Your task to perform on an android device: check battery use Image 0: 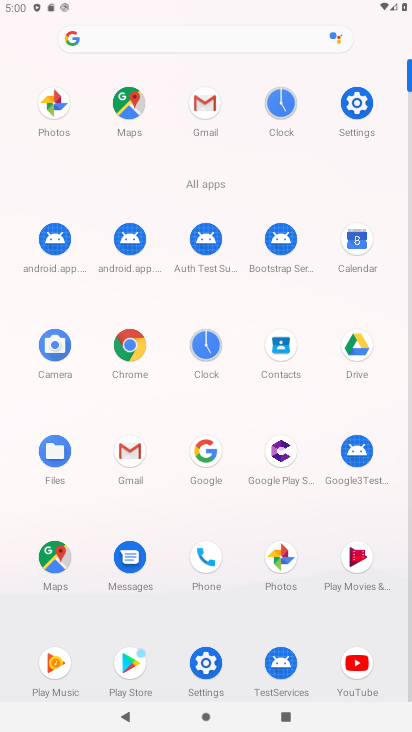
Step 0: press home button
Your task to perform on an android device: check battery use Image 1: 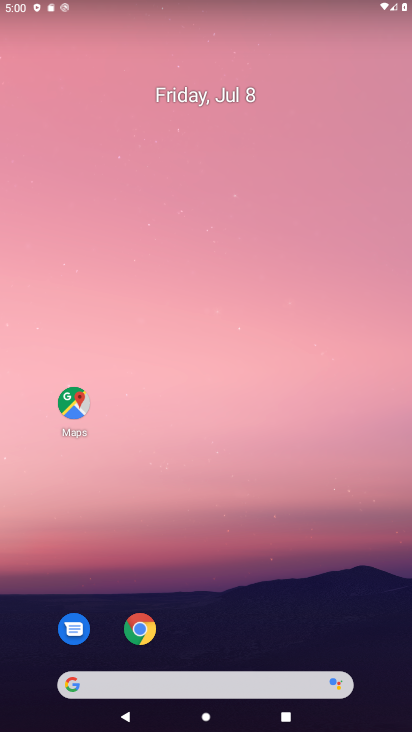
Step 1: drag from (239, 636) to (223, 129)
Your task to perform on an android device: check battery use Image 2: 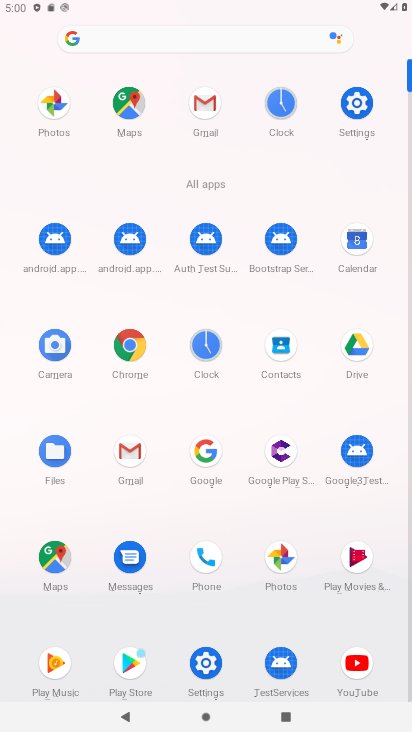
Step 2: click (349, 118)
Your task to perform on an android device: check battery use Image 3: 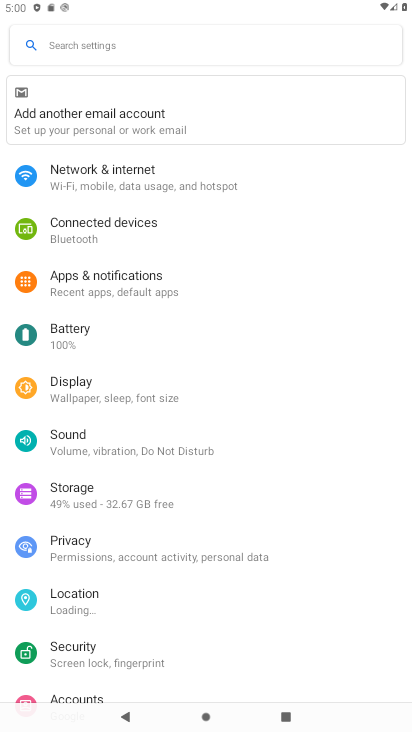
Step 3: click (49, 335)
Your task to perform on an android device: check battery use Image 4: 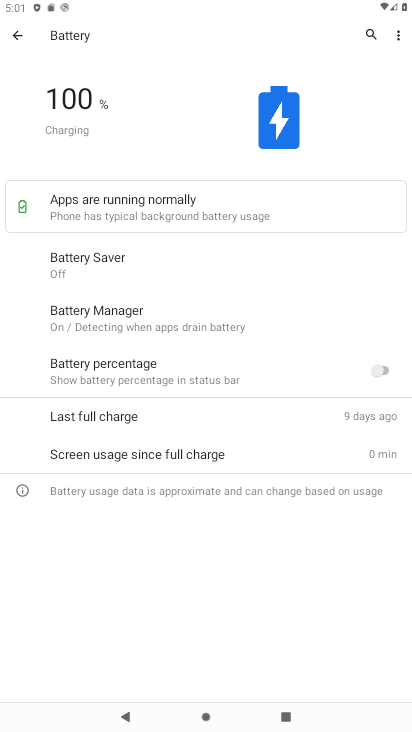
Step 4: click (394, 30)
Your task to perform on an android device: check battery use Image 5: 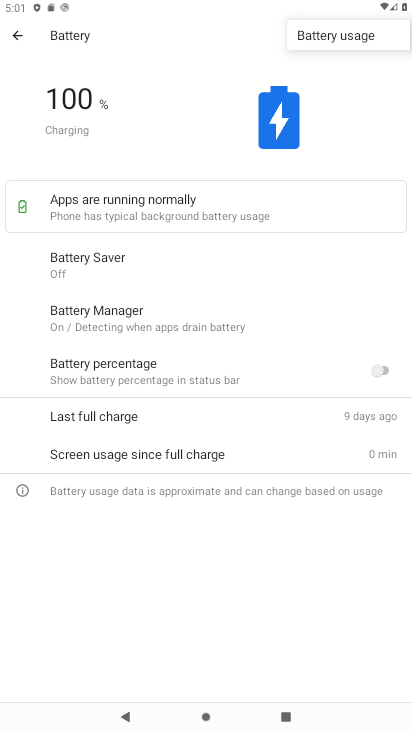
Step 5: click (324, 36)
Your task to perform on an android device: check battery use Image 6: 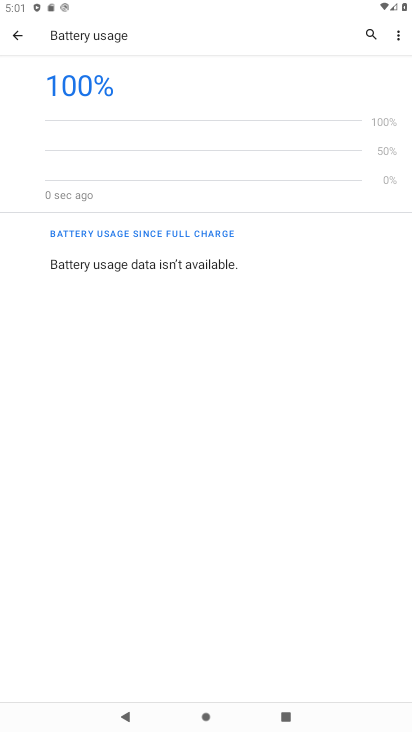
Step 6: task complete